Your task to perform on an android device: Open Yahoo.com Image 0: 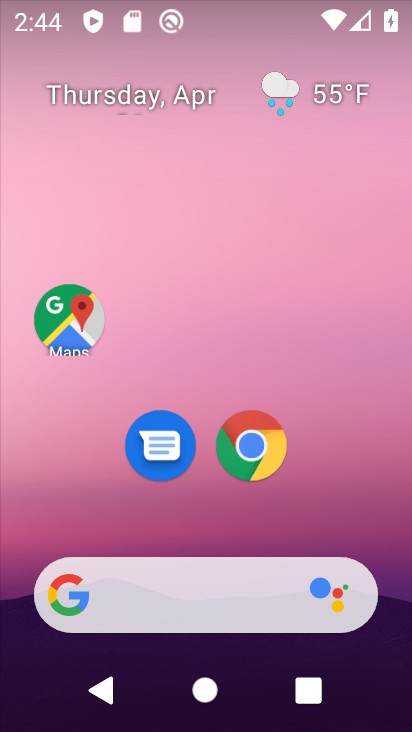
Step 0: click (252, 446)
Your task to perform on an android device: Open Yahoo.com Image 1: 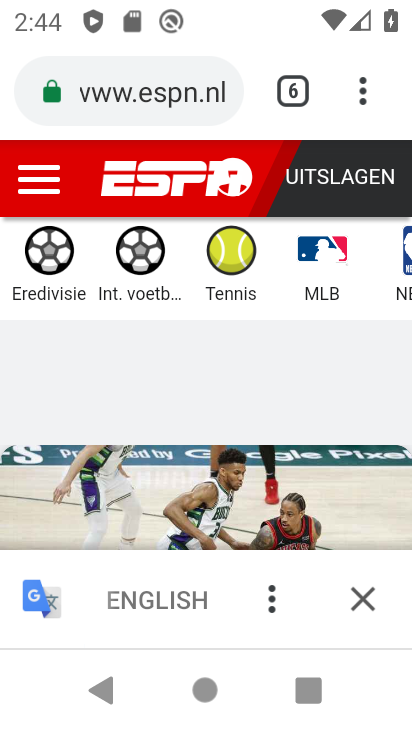
Step 1: click (363, 100)
Your task to perform on an android device: Open Yahoo.com Image 2: 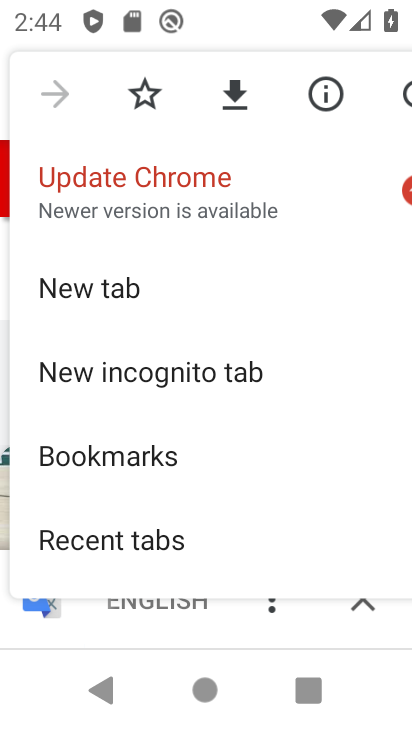
Step 2: click (99, 288)
Your task to perform on an android device: Open Yahoo.com Image 3: 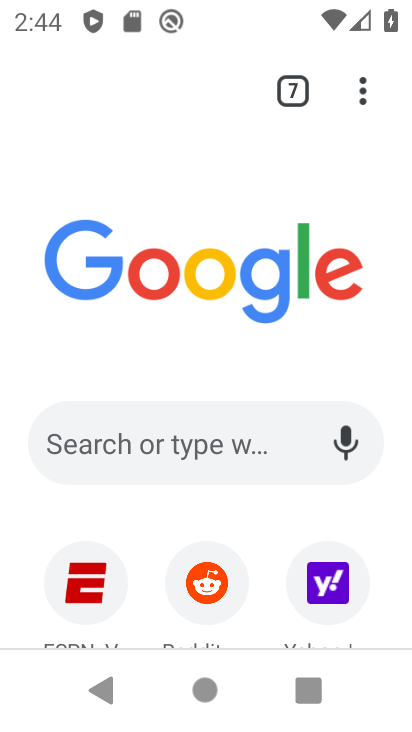
Step 3: click (203, 440)
Your task to perform on an android device: Open Yahoo.com Image 4: 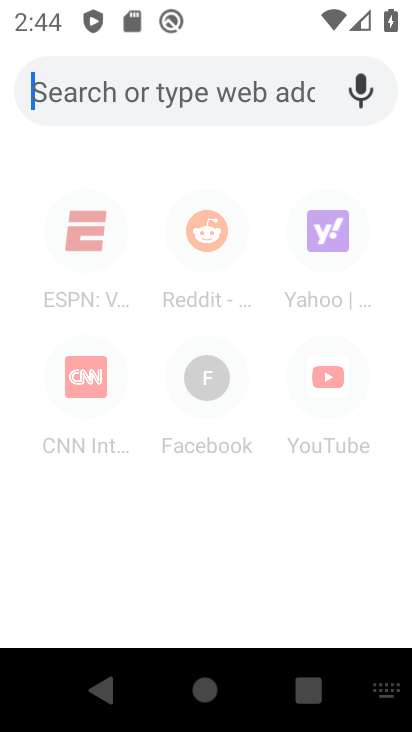
Step 4: type "Yahoo.com"
Your task to perform on an android device: Open Yahoo.com Image 5: 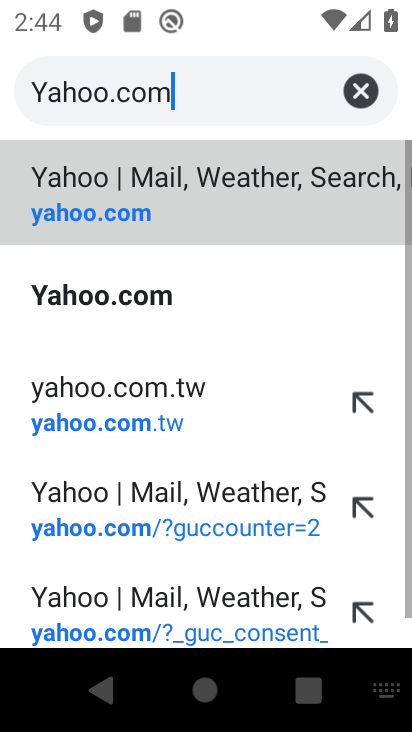
Step 5: click (152, 189)
Your task to perform on an android device: Open Yahoo.com Image 6: 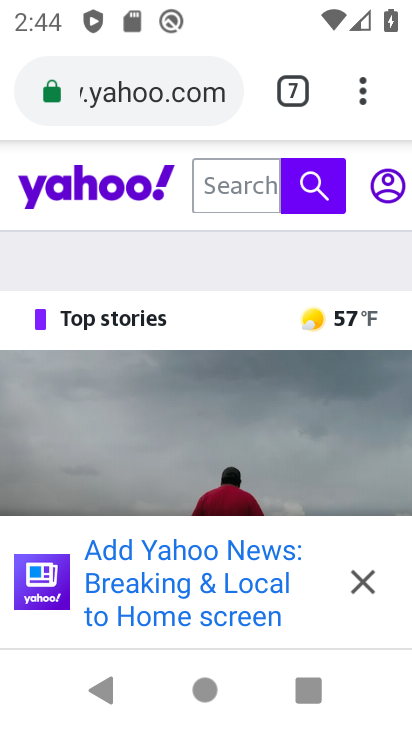
Step 6: task complete